Your task to perform on an android device: delete a single message in the gmail app Image 0: 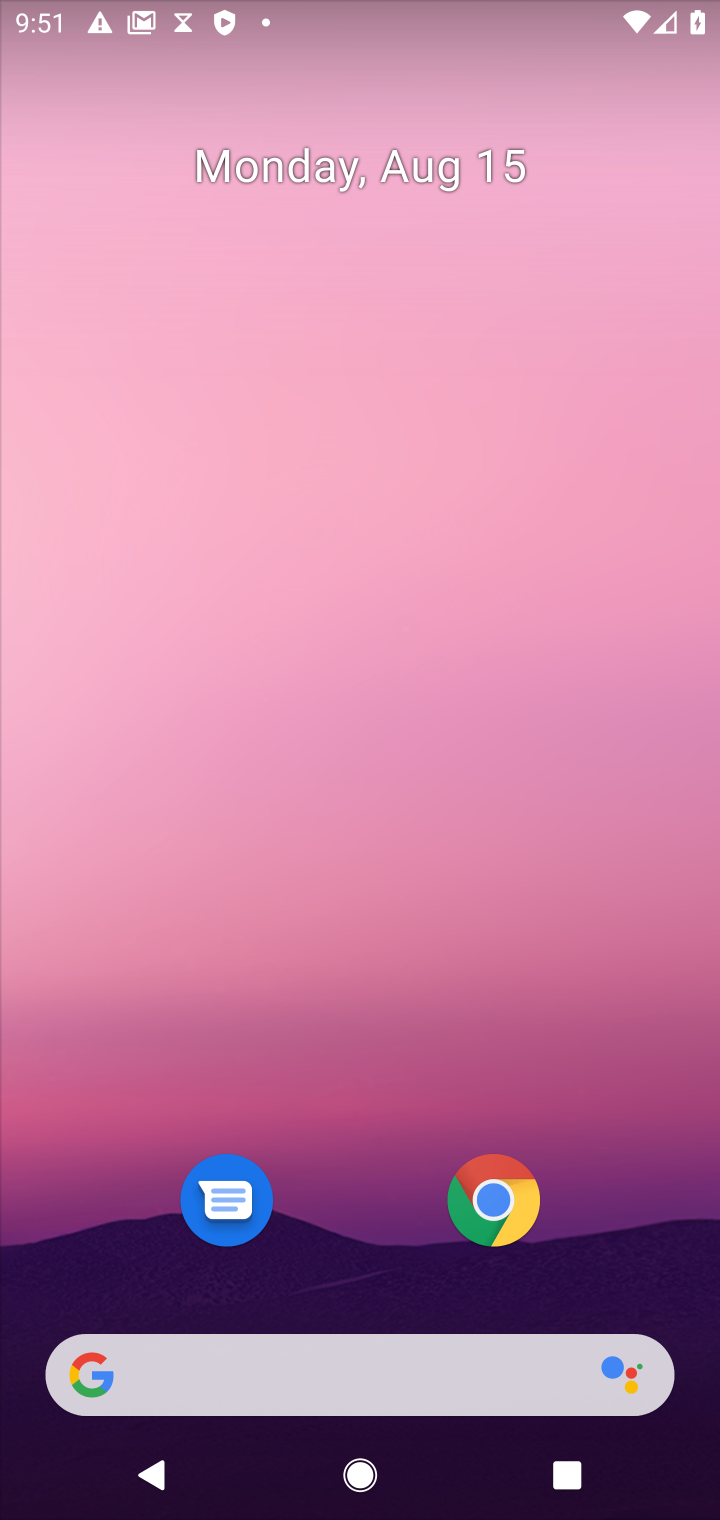
Step 0: drag from (353, 774) to (353, 121)
Your task to perform on an android device: delete a single message in the gmail app Image 1: 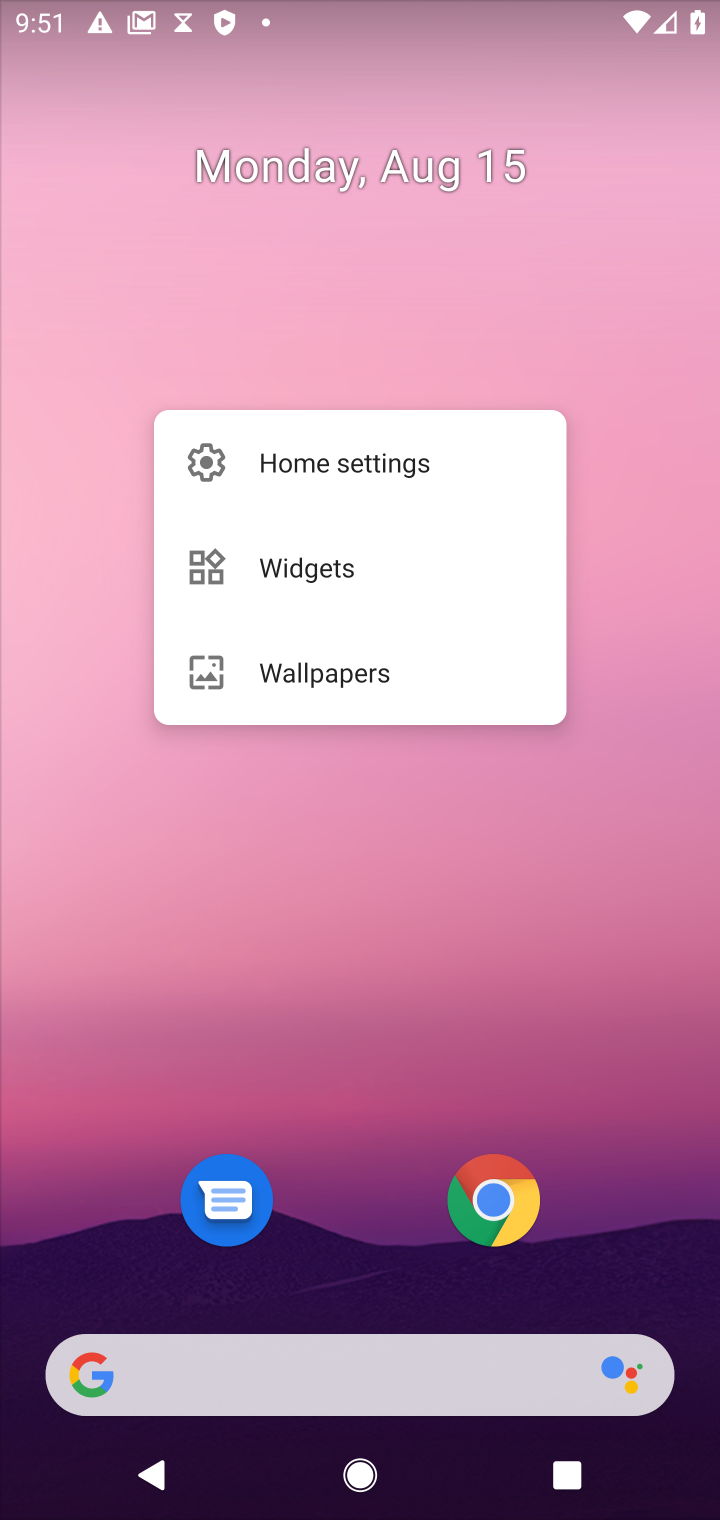
Step 1: click (339, 999)
Your task to perform on an android device: delete a single message in the gmail app Image 2: 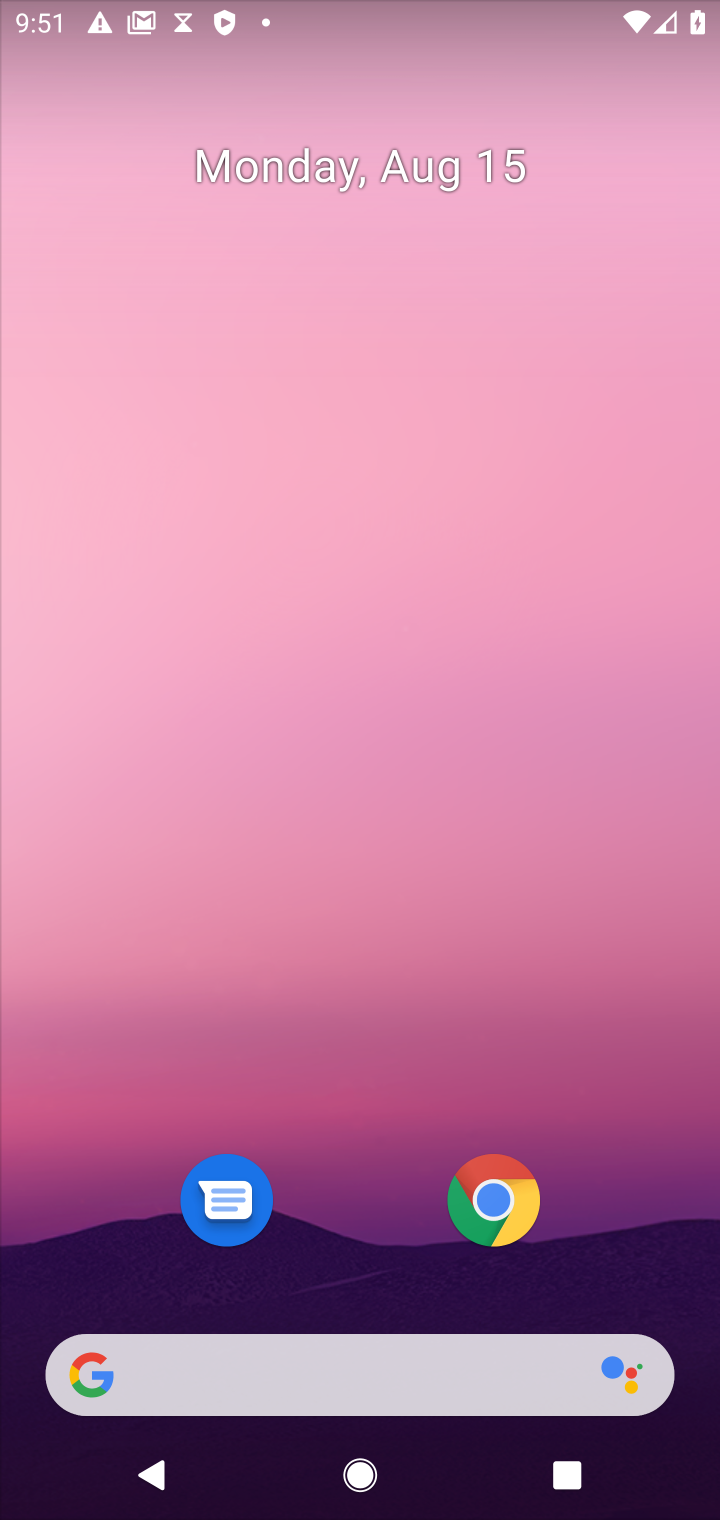
Step 2: drag from (362, 1229) to (393, 148)
Your task to perform on an android device: delete a single message in the gmail app Image 3: 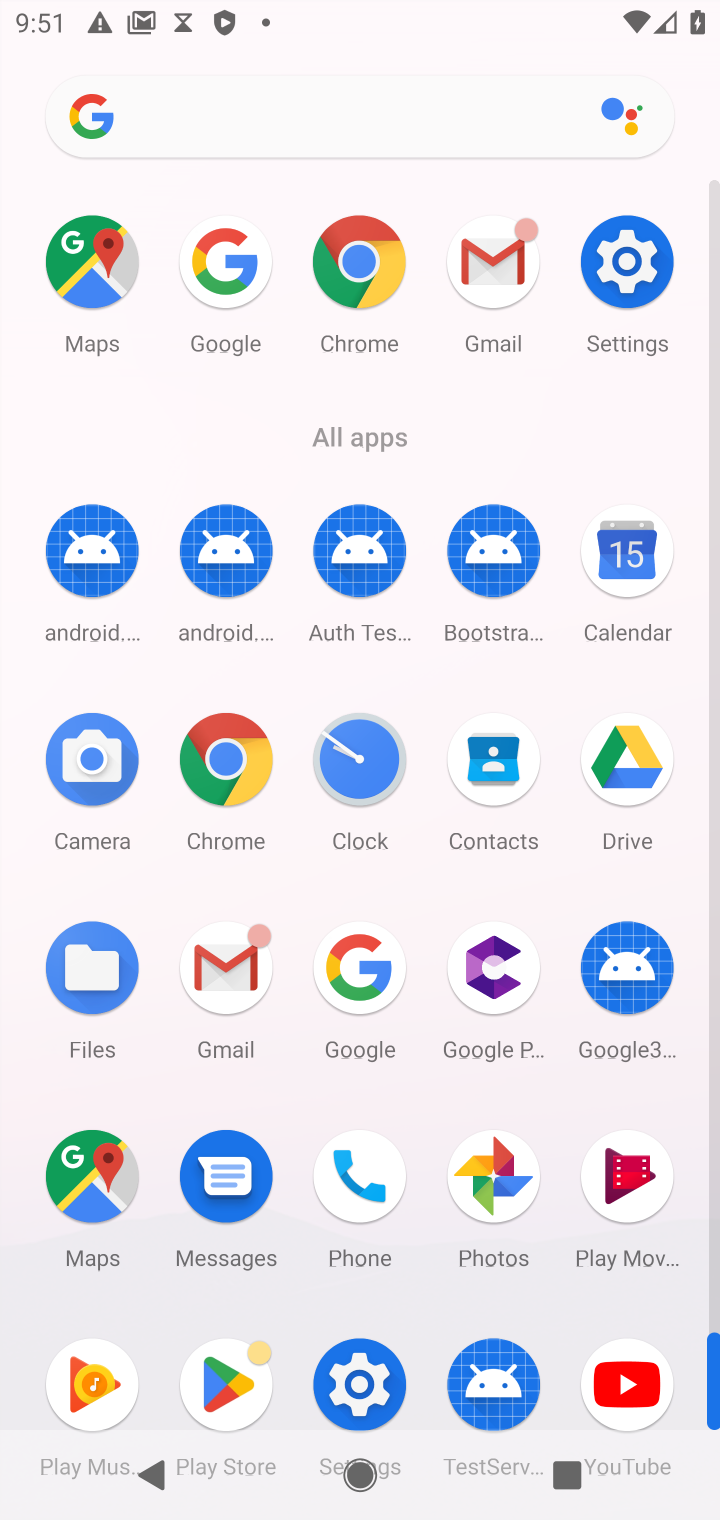
Step 3: click (507, 289)
Your task to perform on an android device: delete a single message in the gmail app Image 4: 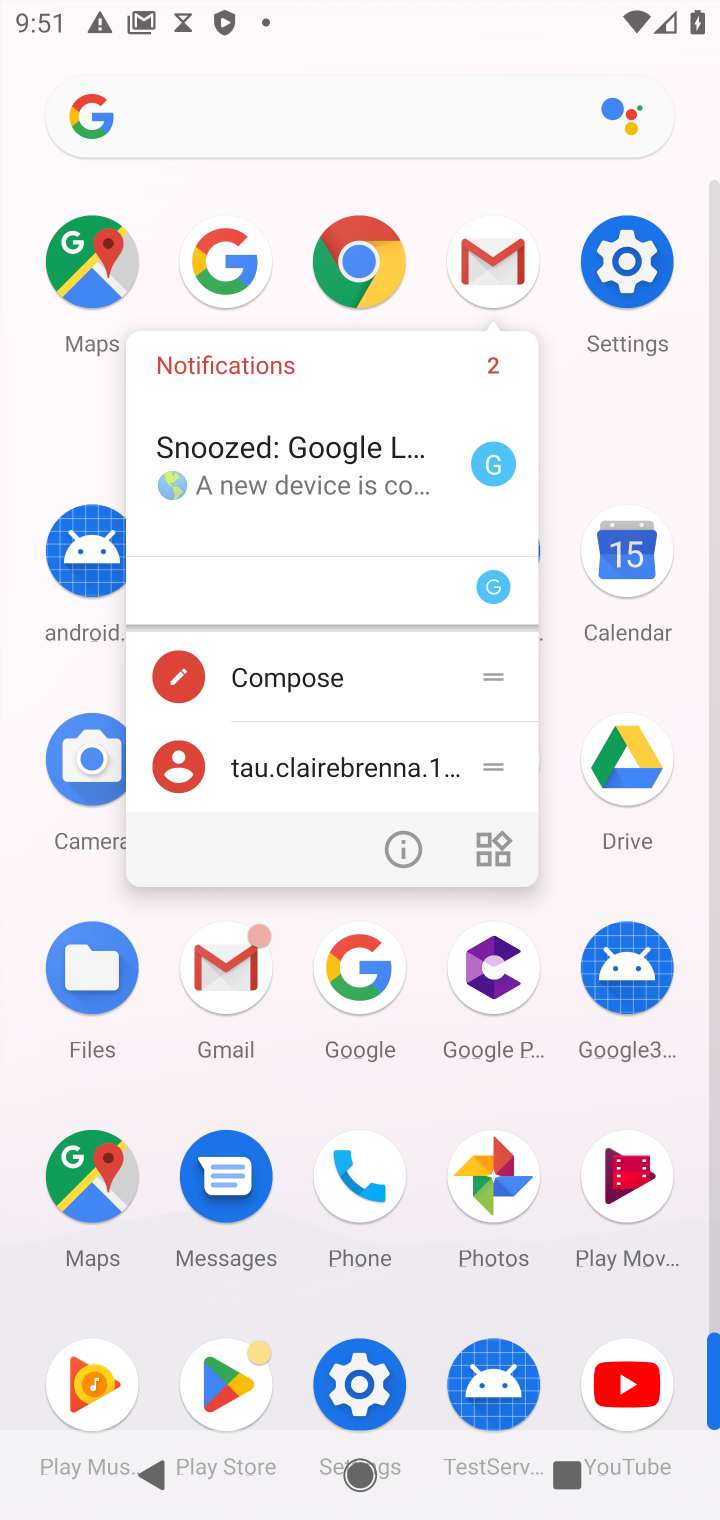
Step 4: click (494, 246)
Your task to perform on an android device: delete a single message in the gmail app Image 5: 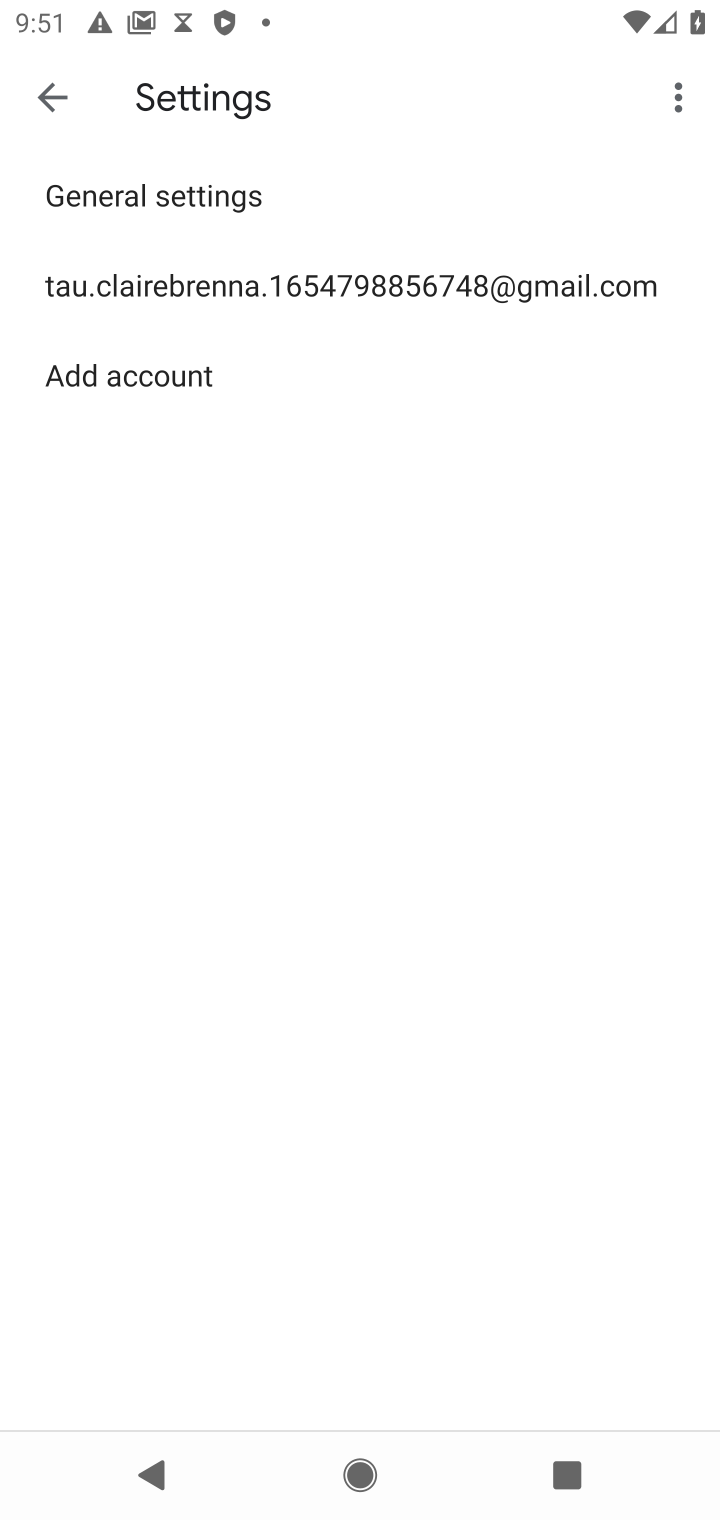
Step 5: click (550, 295)
Your task to perform on an android device: delete a single message in the gmail app Image 6: 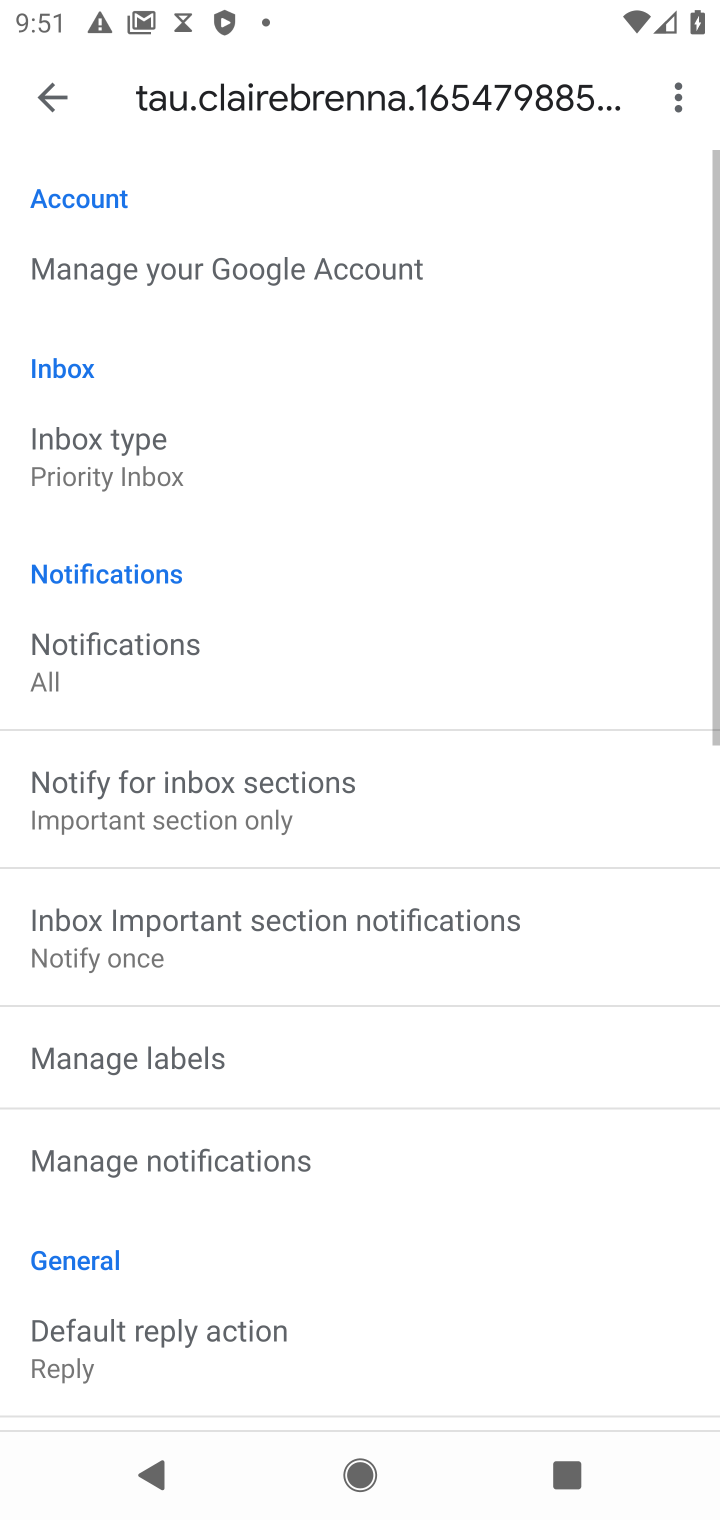
Step 6: click (52, 77)
Your task to perform on an android device: delete a single message in the gmail app Image 7: 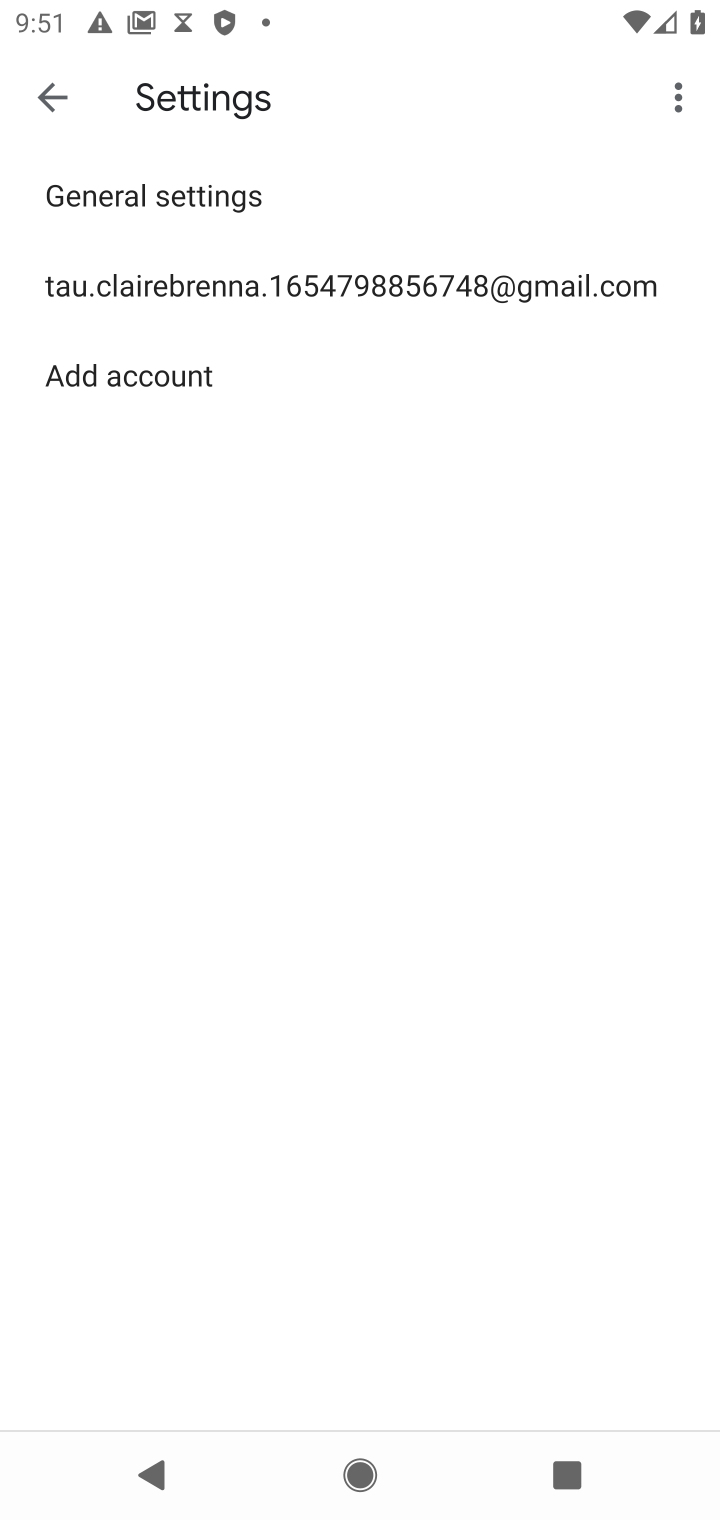
Step 7: click (52, 77)
Your task to perform on an android device: delete a single message in the gmail app Image 8: 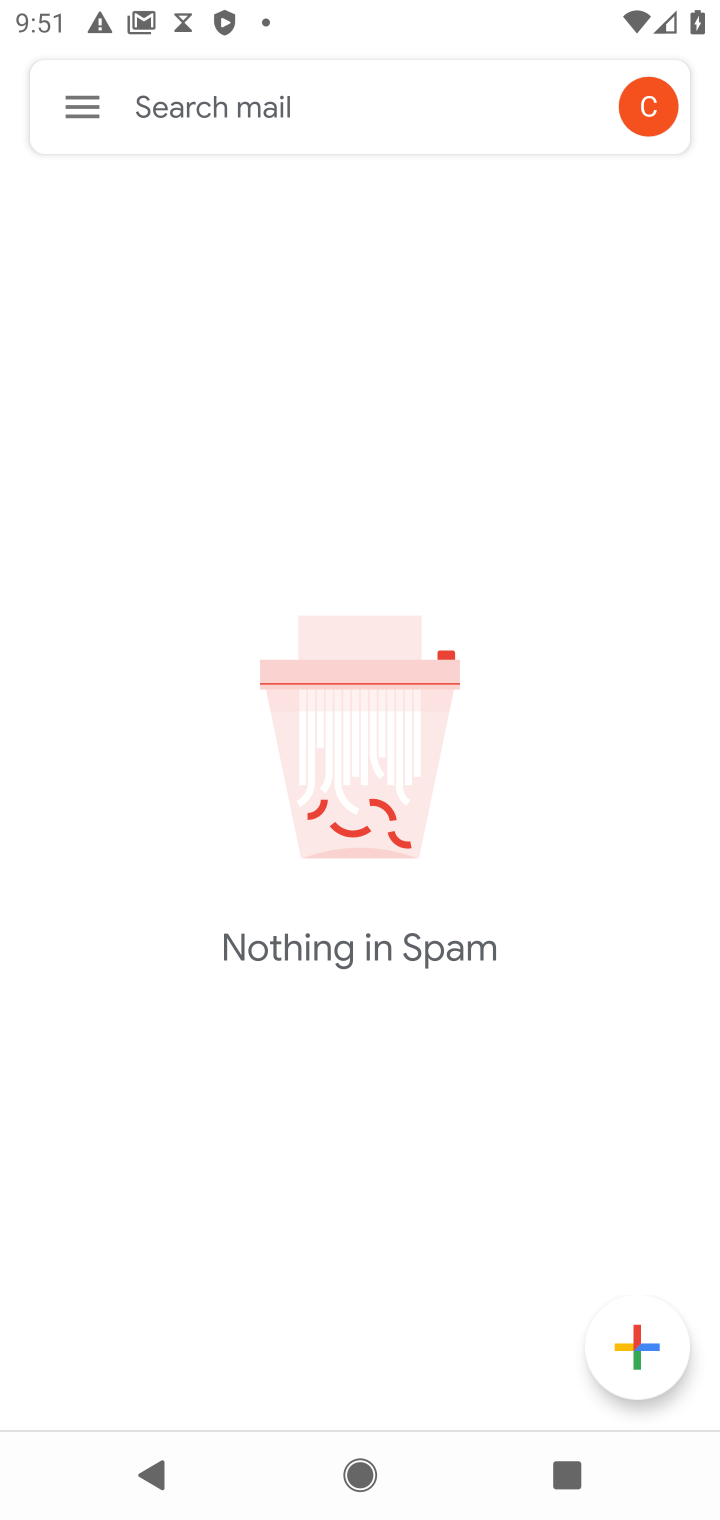
Step 8: click (77, 96)
Your task to perform on an android device: delete a single message in the gmail app Image 9: 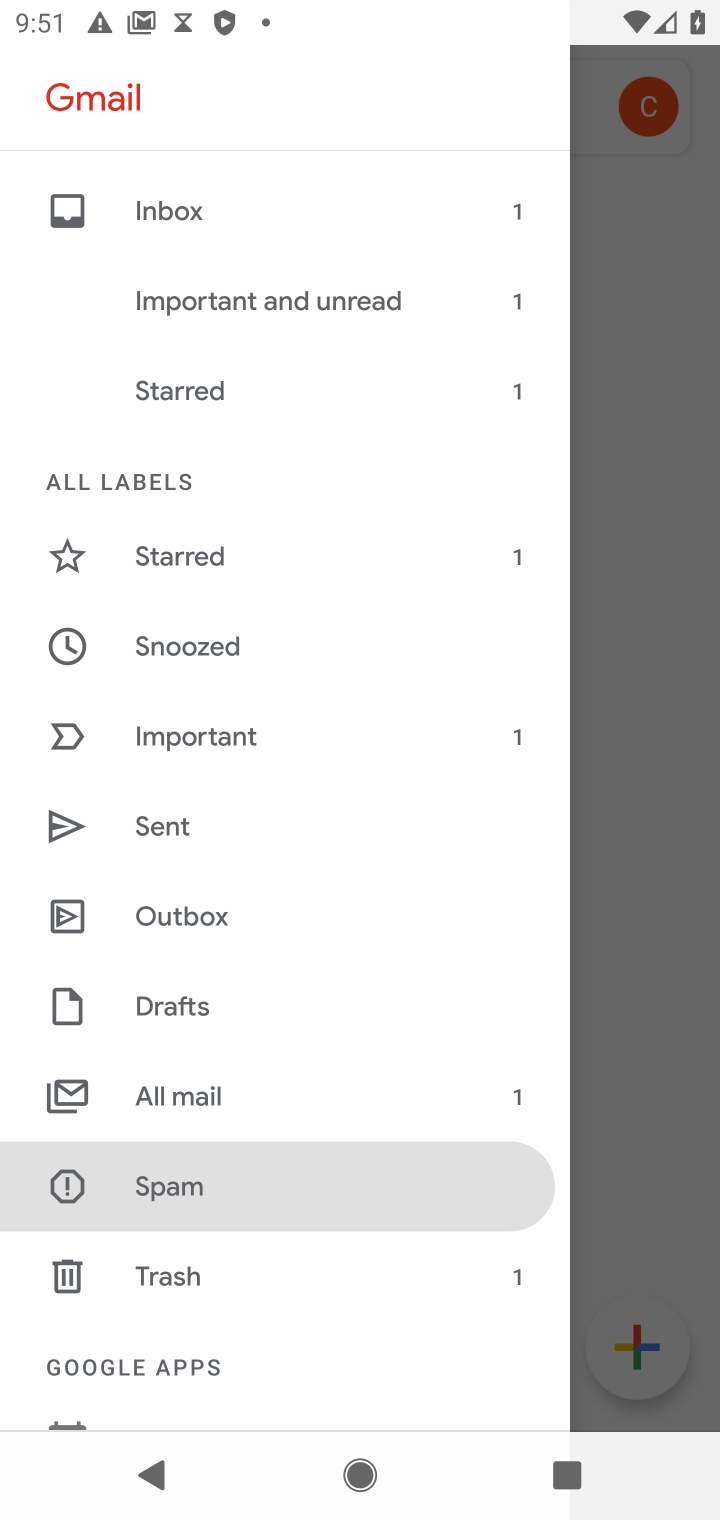
Step 9: click (249, 1102)
Your task to perform on an android device: delete a single message in the gmail app Image 10: 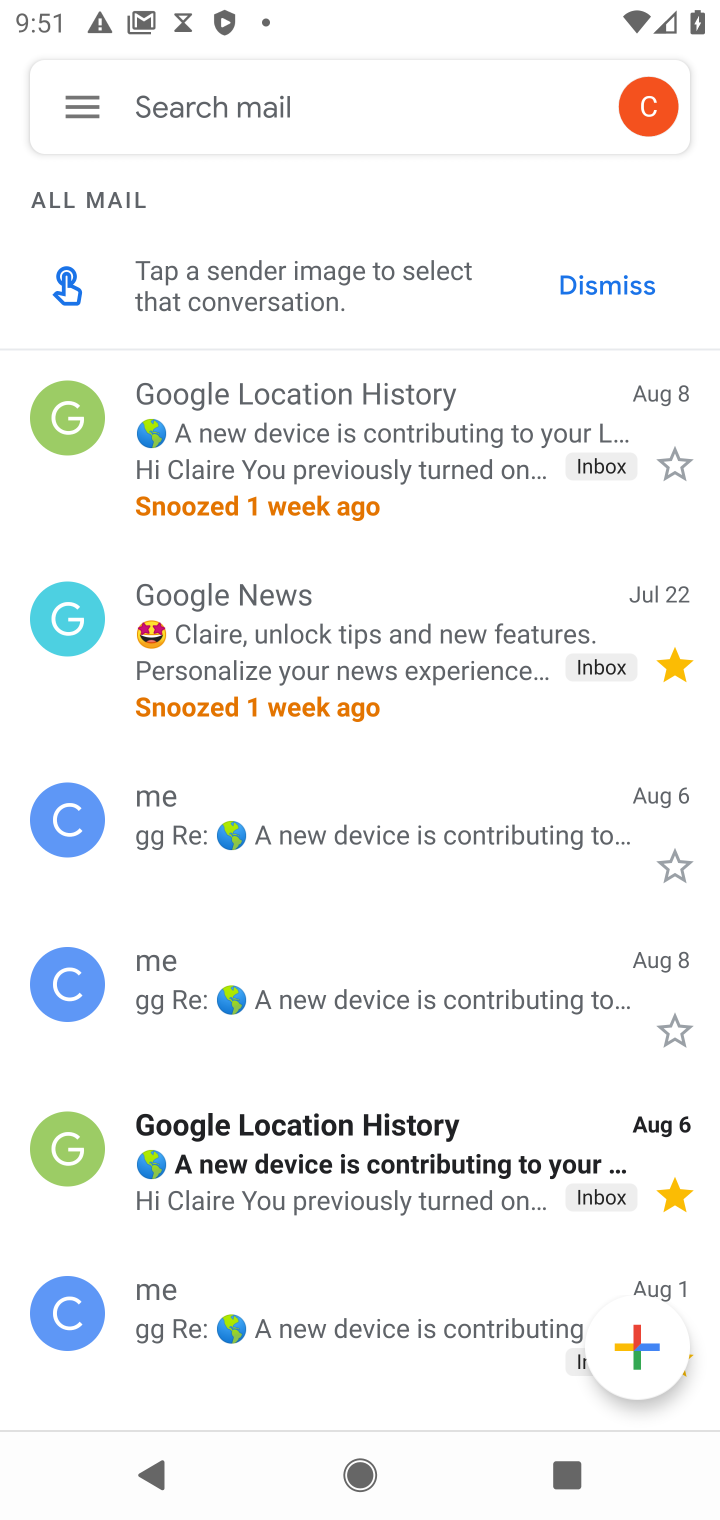
Step 10: click (312, 635)
Your task to perform on an android device: delete a single message in the gmail app Image 11: 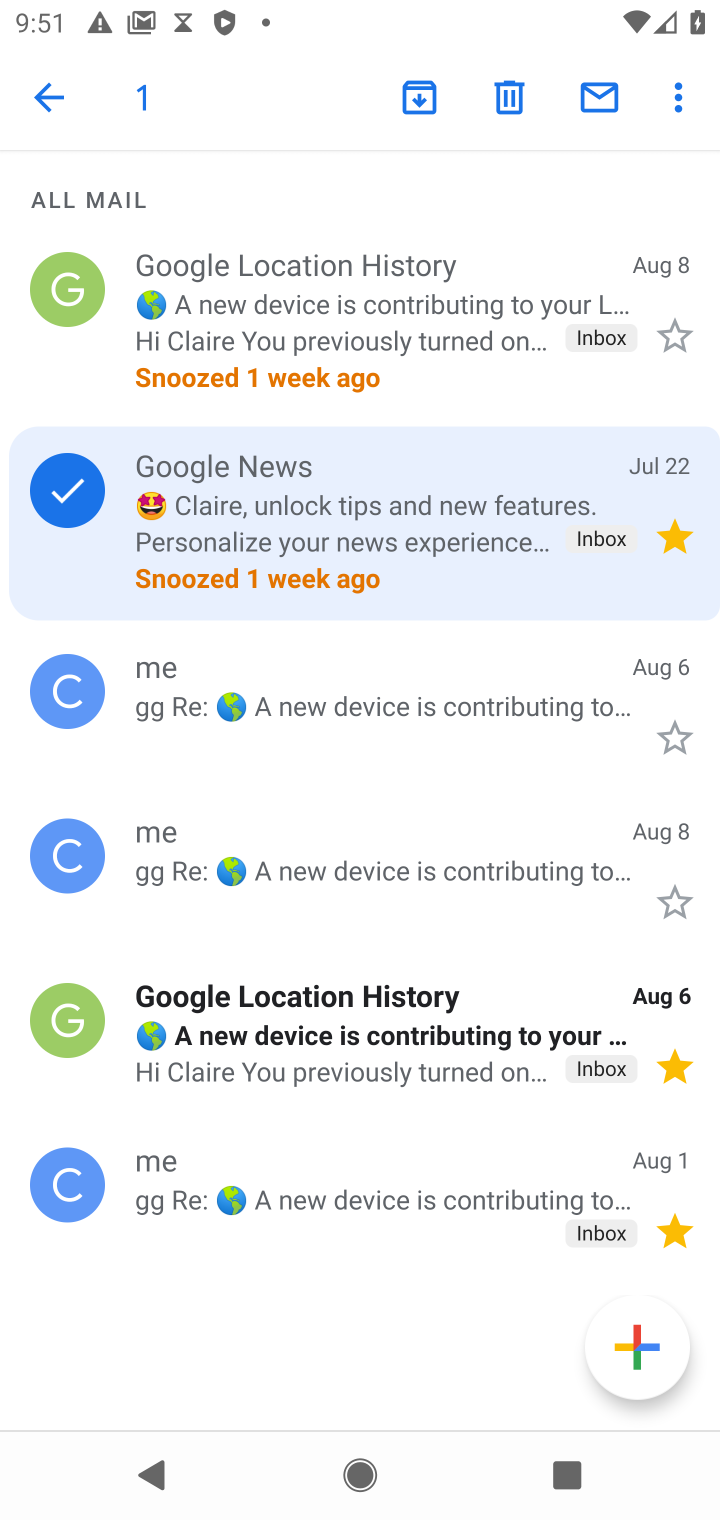
Step 11: click (496, 108)
Your task to perform on an android device: delete a single message in the gmail app Image 12: 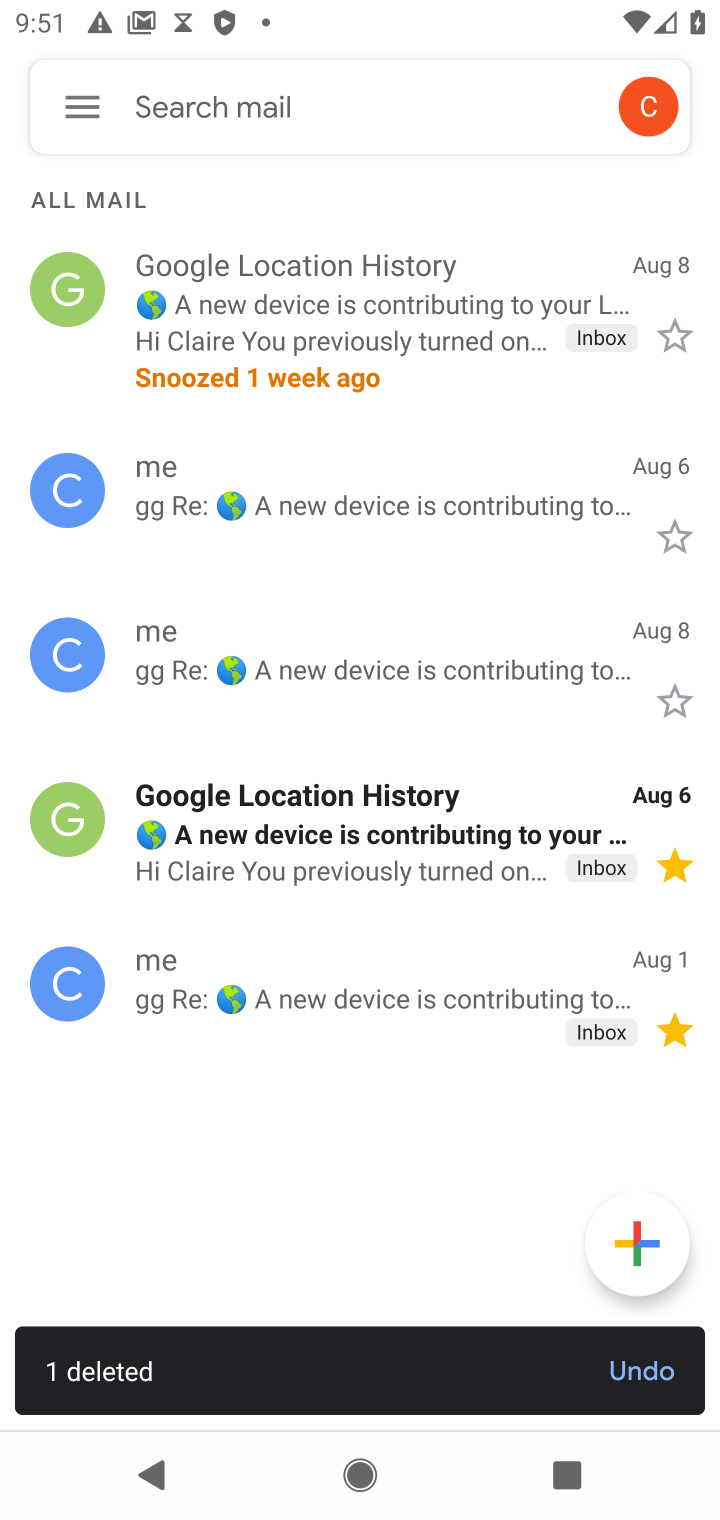
Step 12: task complete